Your task to perform on an android device: turn on wifi Image 0: 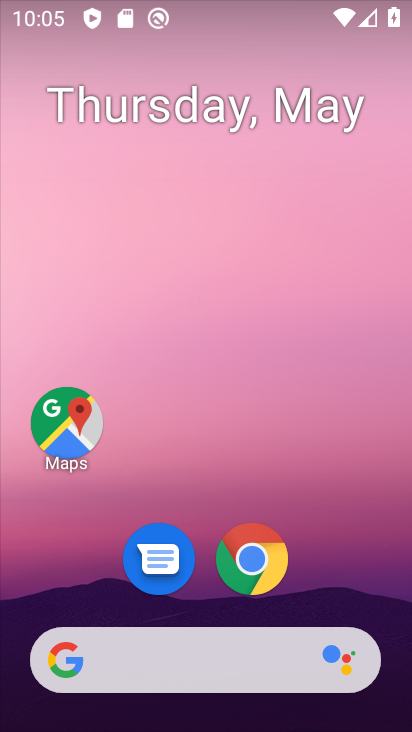
Step 0: drag from (352, 439) to (326, 9)
Your task to perform on an android device: turn on wifi Image 1: 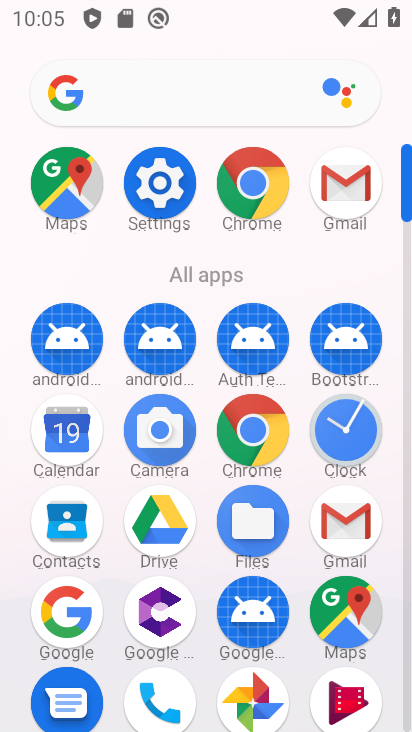
Step 1: click (149, 183)
Your task to perform on an android device: turn on wifi Image 2: 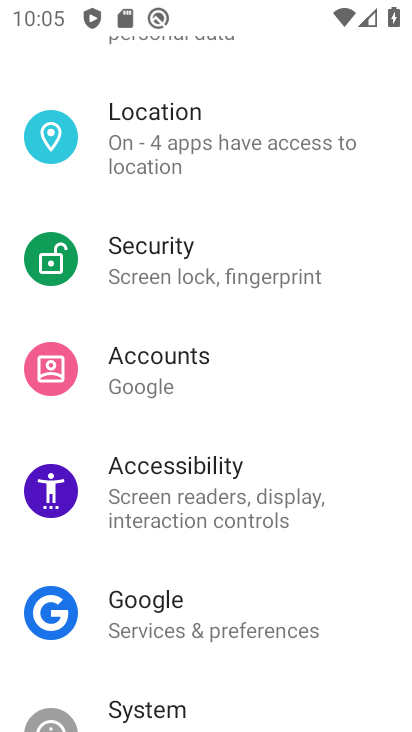
Step 2: drag from (150, 175) to (168, 634)
Your task to perform on an android device: turn on wifi Image 3: 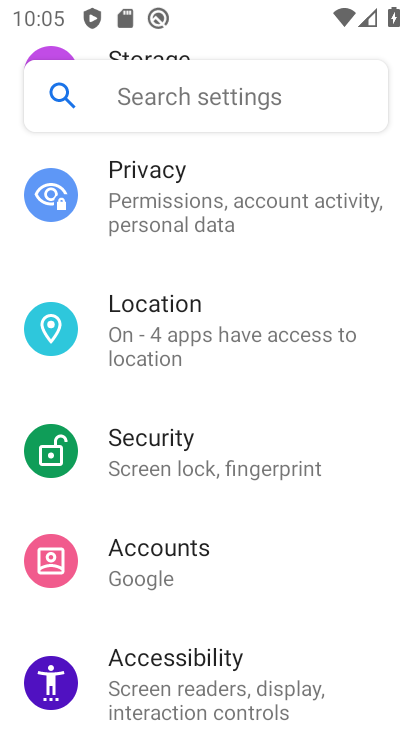
Step 3: drag from (238, 226) to (279, 666)
Your task to perform on an android device: turn on wifi Image 4: 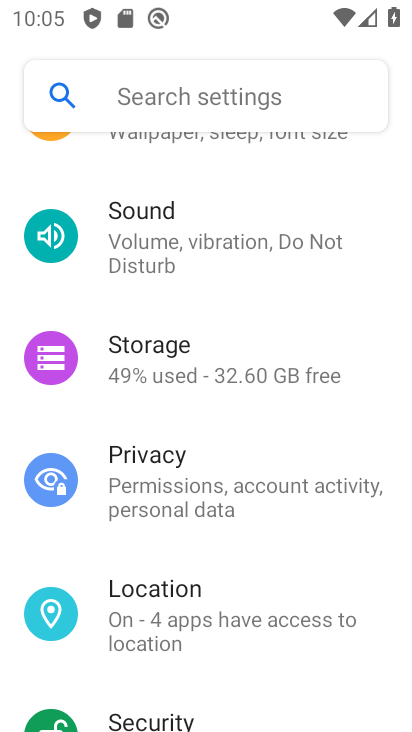
Step 4: drag from (263, 268) to (276, 591)
Your task to perform on an android device: turn on wifi Image 5: 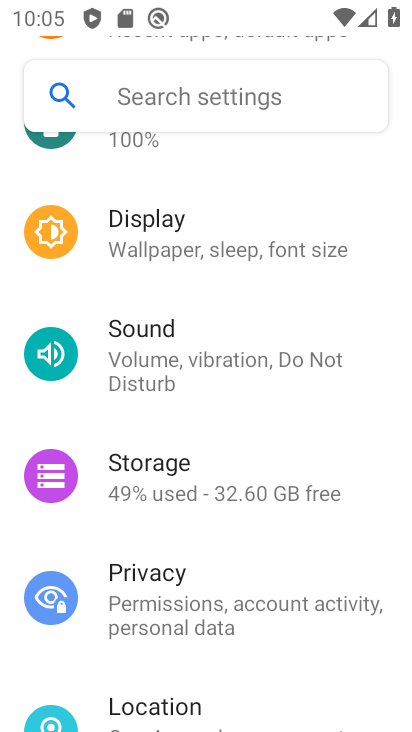
Step 5: drag from (245, 204) to (309, 679)
Your task to perform on an android device: turn on wifi Image 6: 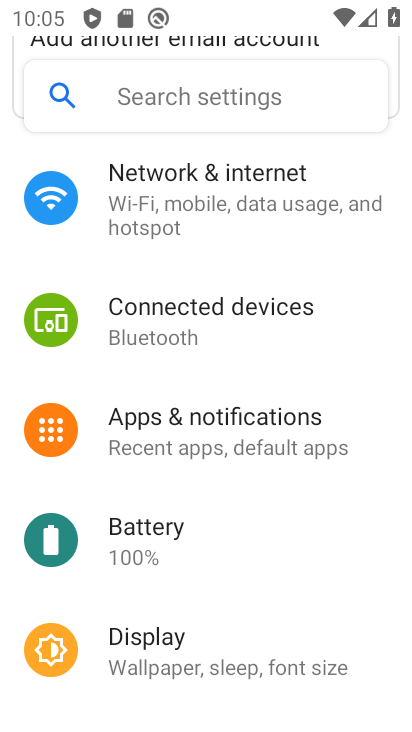
Step 6: drag from (234, 197) to (286, 615)
Your task to perform on an android device: turn on wifi Image 7: 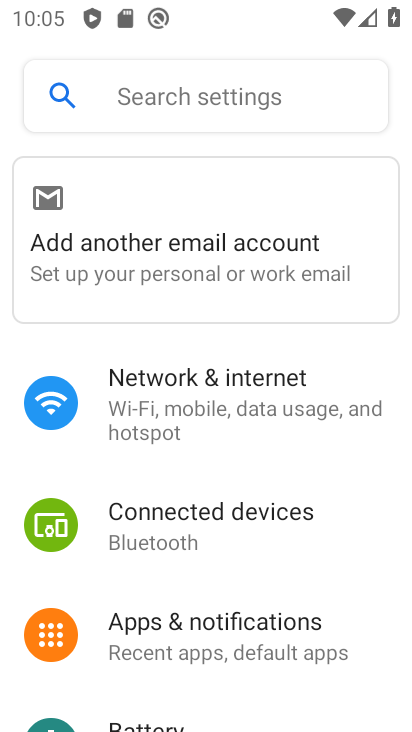
Step 7: click (199, 379)
Your task to perform on an android device: turn on wifi Image 8: 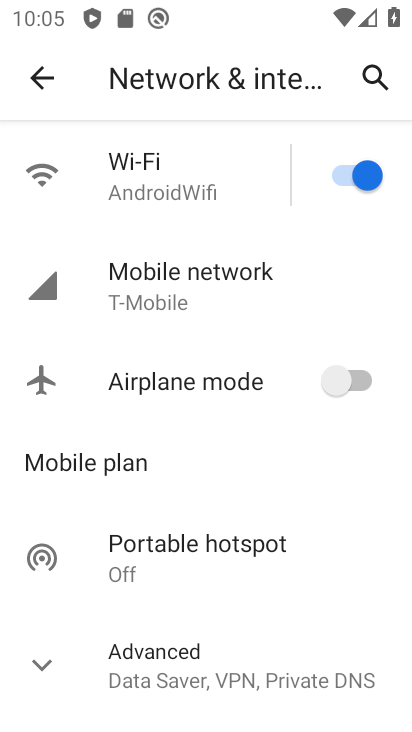
Step 8: task complete